Your task to perform on an android device: Open Yahoo.com Image 0: 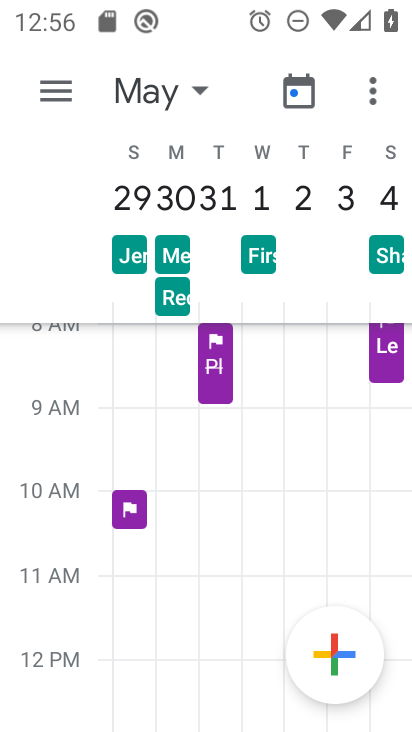
Step 0: press home button
Your task to perform on an android device: Open Yahoo.com Image 1: 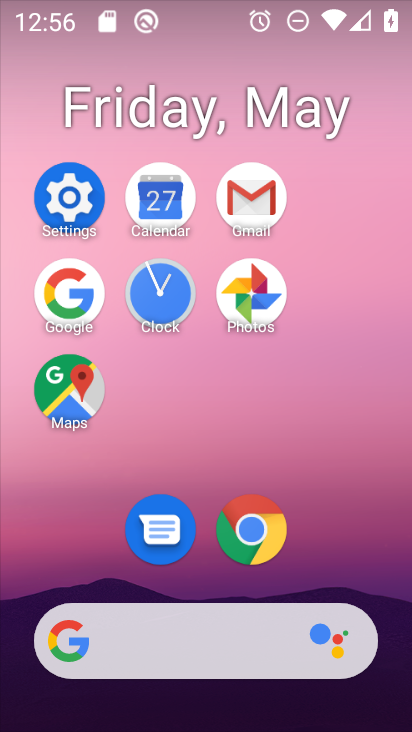
Step 1: click (262, 537)
Your task to perform on an android device: Open Yahoo.com Image 2: 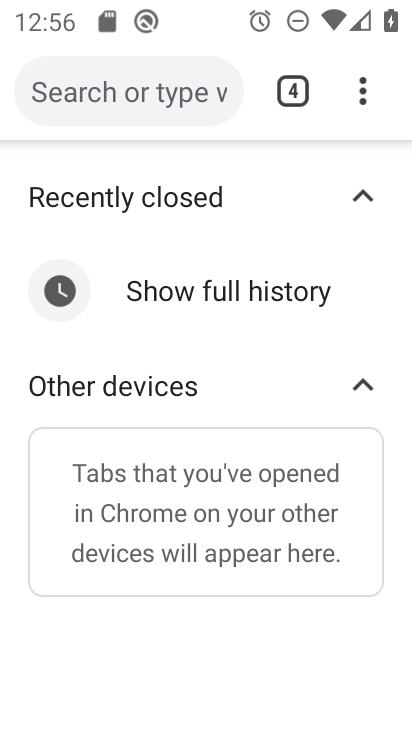
Step 2: click (305, 105)
Your task to perform on an android device: Open Yahoo.com Image 3: 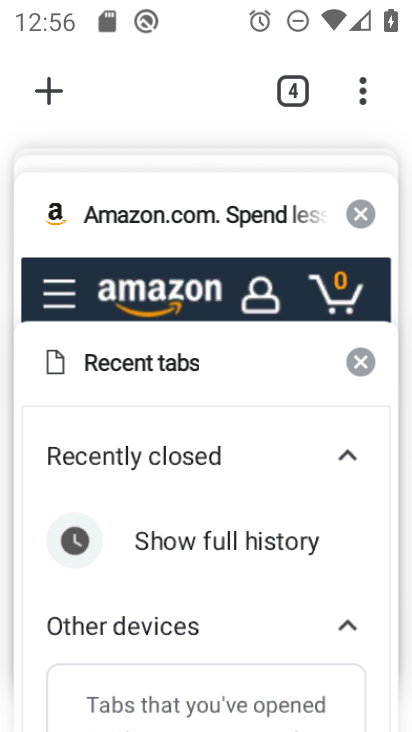
Step 3: click (41, 89)
Your task to perform on an android device: Open Yahoo.com Image 4: 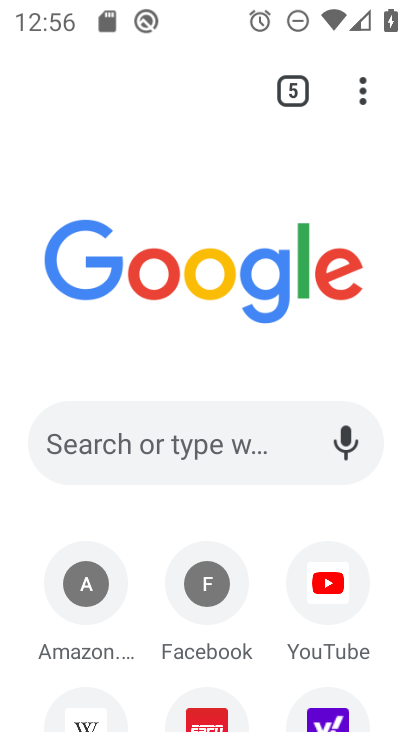
Step 4: click (325, 708)
Your task to perform on an android device: Open Yahoo.com Image 5: 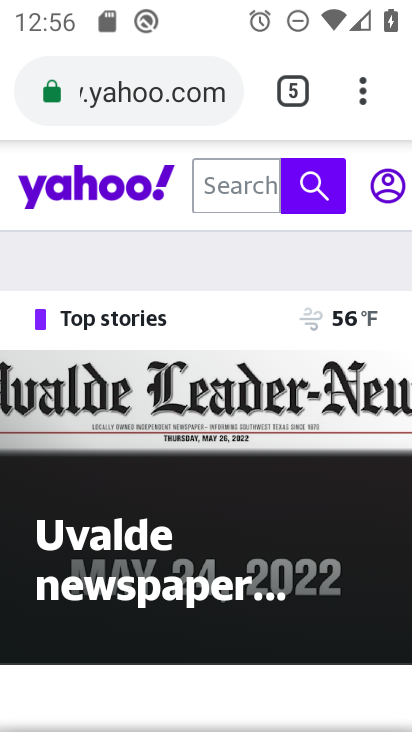
Step 5: task complete